Your task to perform on an android device: turn smart compose on in the gmail app Image 0: 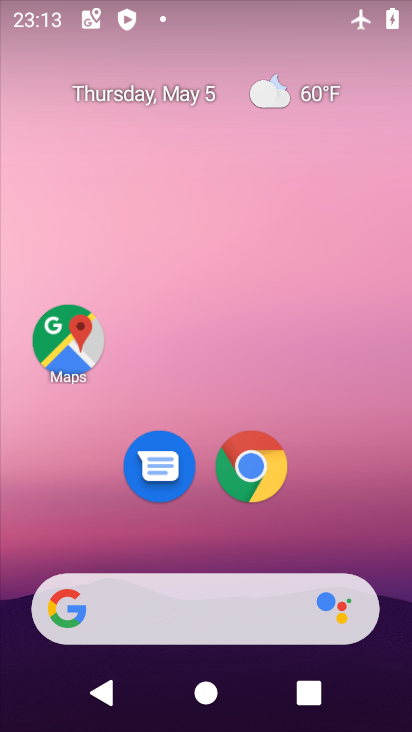
Step 0: drag from (195, 549) to (260, 259)
Your task to perform on an android device: turn smart compose on in the gmail app Image 1: 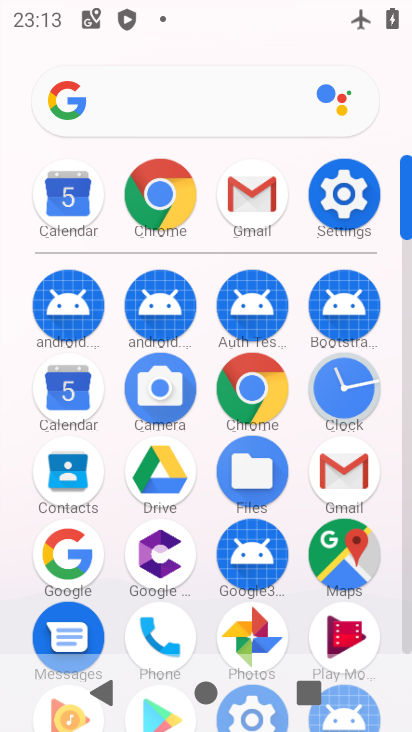
Step 1: click (355, 473)
Your task to perform on an android device: turn smart compose on in the gmail app Image 2: 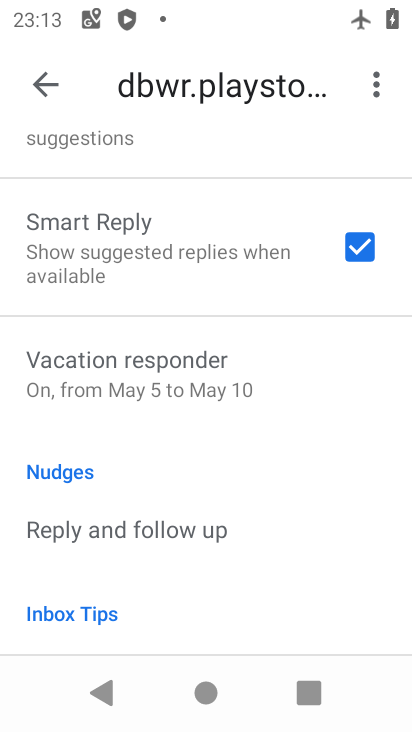
Step 2: drag from (146, 235) to (179, 516)
Your task to perform on an android device: turn smart compose on in the gmail app Image 3: 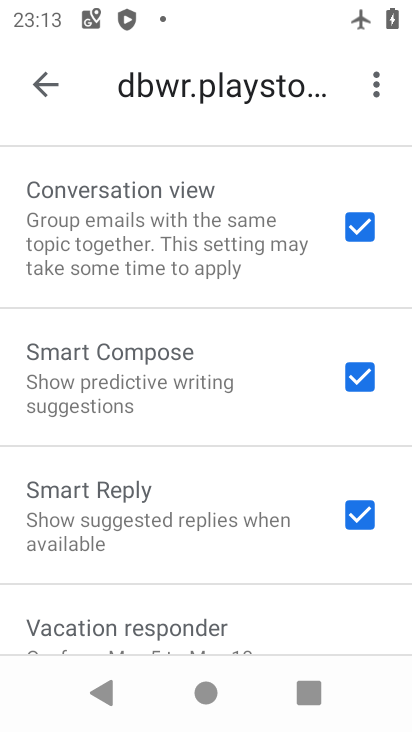
Step 3: click (126, 388)
Your task to perform on an android device: turn smart compose on in the gmail app Image 4: 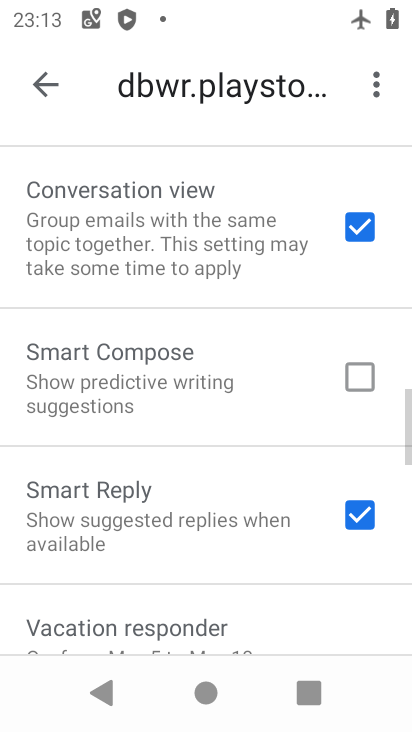
Step 4: click (370, 381)
Your task to perform on an android device: turn smart compose on in the gmail app Image 5: 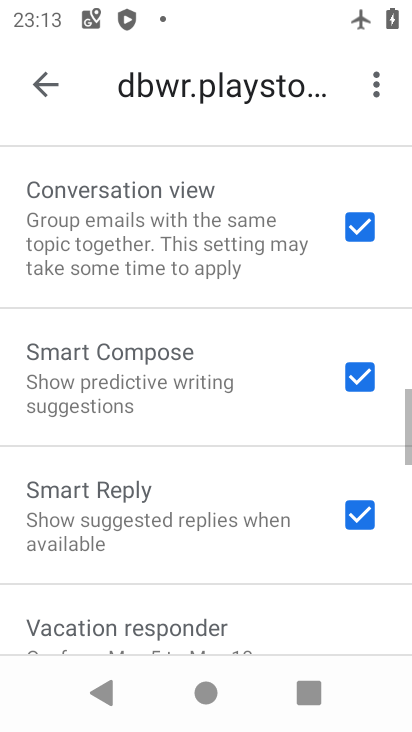
Step 5: task complete